Your task to perform on an android device: turn off notifications in google photos Image 0: 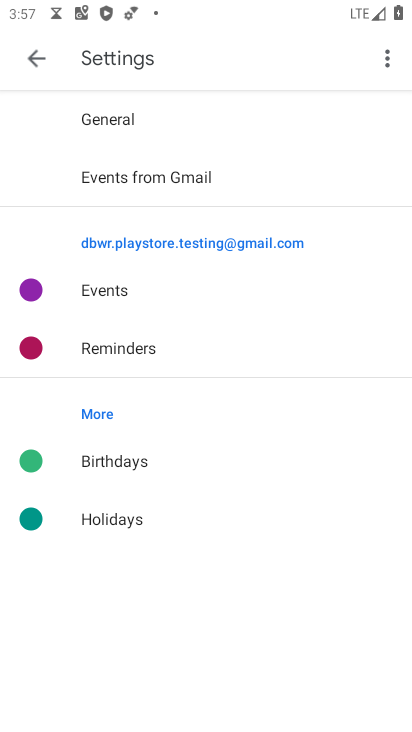
Step 0: press home button
Your task to perform on an android device: turn off notifications in google photos Image 1: 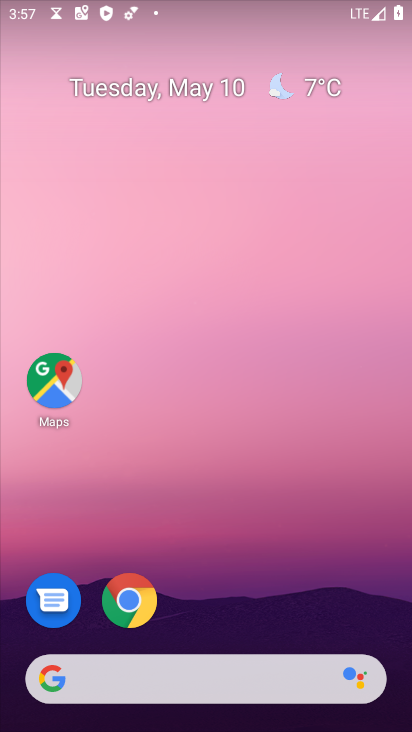
Step 1: drag from (207, 644) to (300, 75)
Your task to perform on an android device: turn off notifications in google photos Image 2: 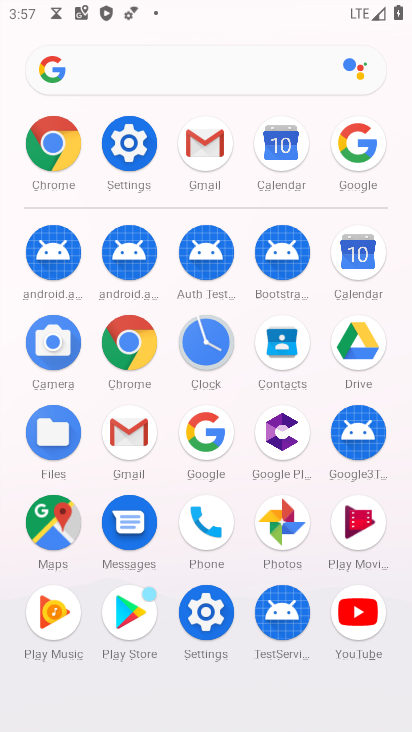
Step 2: click (284, 539)
Your task to perform on an android device: turn off notifications in google photos Image 3: 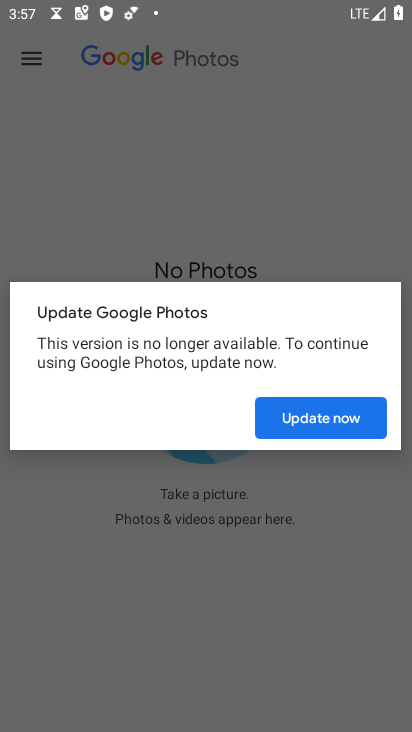
Step 3: click (299, 421)
Your task to perform on an android device: turn off notifications in google photos Image 4: 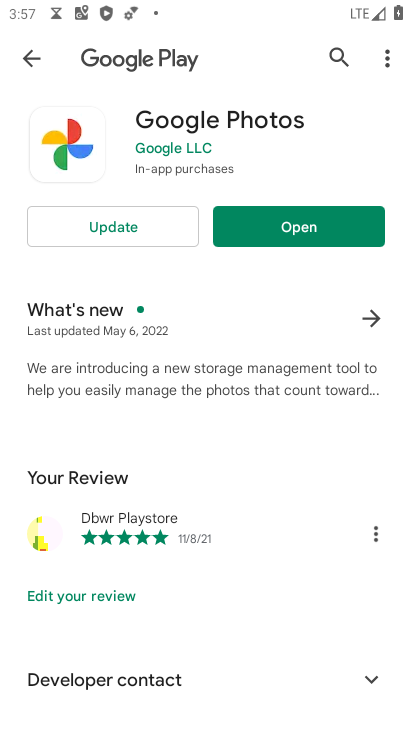
Step 4: click (171, 233)
Your task to perform on an android device: turn off notifications in google photos Image 5: 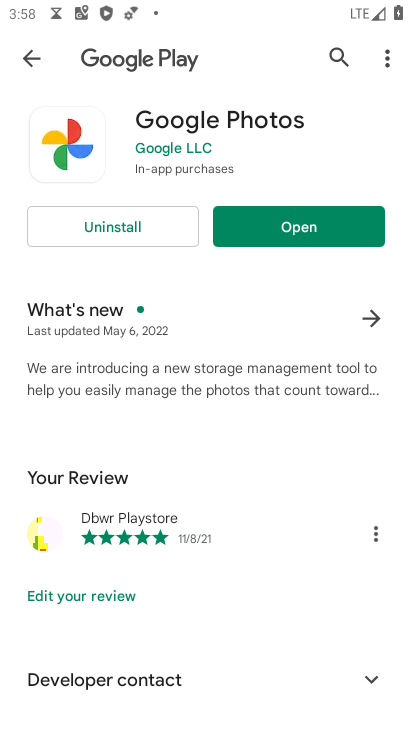
Step 5: click (269, 229)
Your task to perform on an android device: turn off notifications in google photos Image 6: 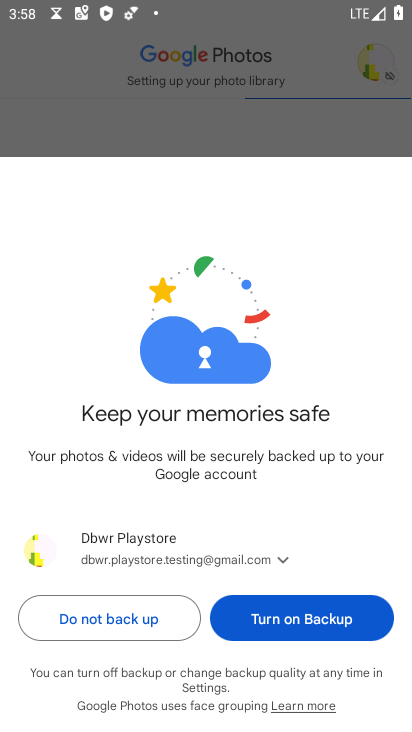
Step 6: click (310, 619)
Your task to perform on an android device: turn off notifications in google photos Image 7: 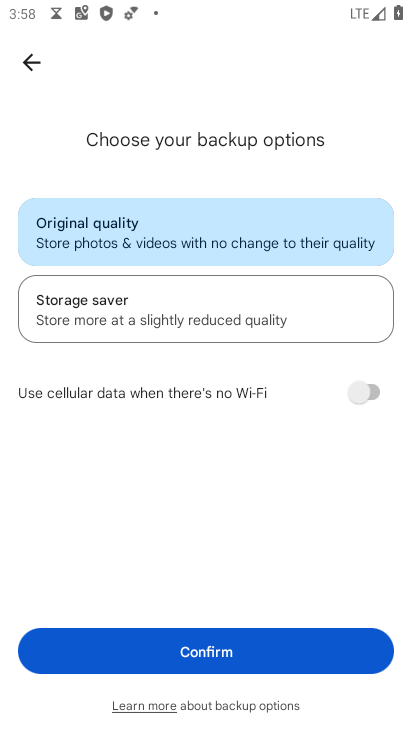
Step 7: click (372, 622)
Your task to perform on an android device: turn off notifications in google photos Image 8: 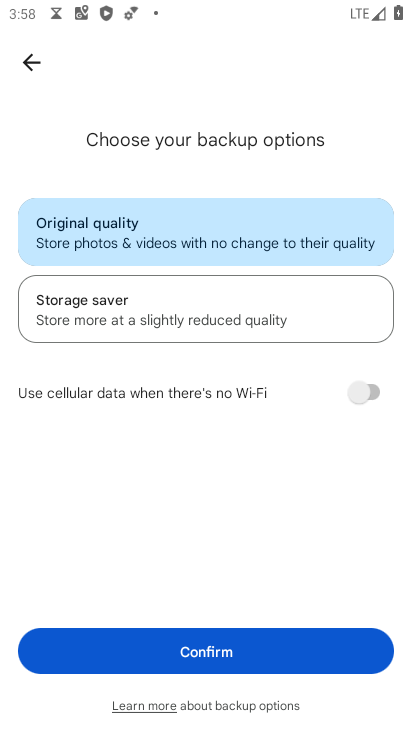
Step 8: click (332, 633)
Your task to perform on an android device: turn off notifications in google photos Image 9: 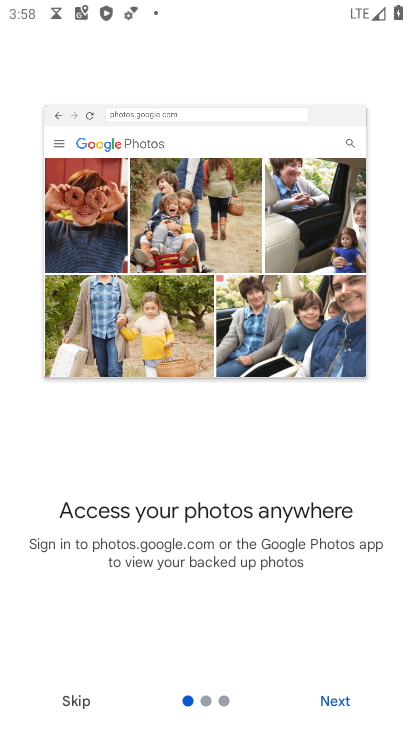
Step 9: click (342, 701)
Your task to perform on an android device: turn off notifications in google photos Image 10: 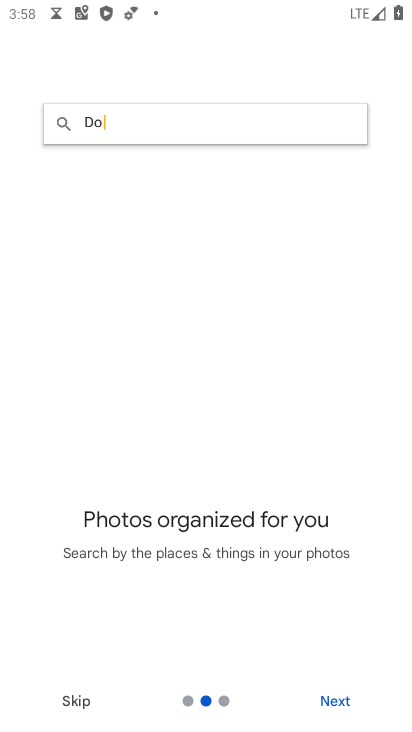
Step 10: click (353, 712)
Your task to perform on an android device: turn off notifications in google photos Image 11: 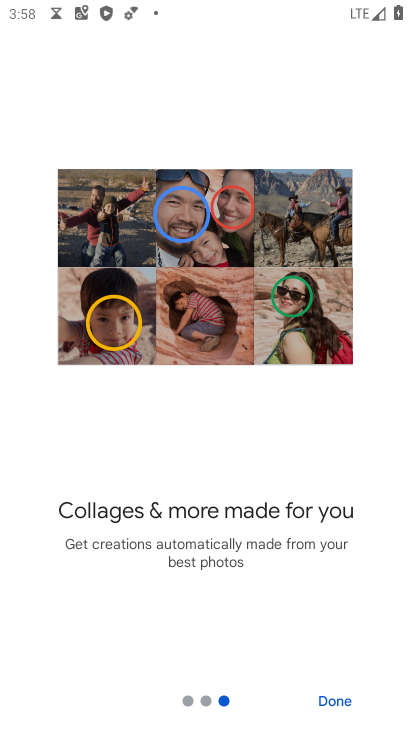
Step 11: click (344, 688)
Your task to perform on an android device: turn off notifications in google photos Image 12: 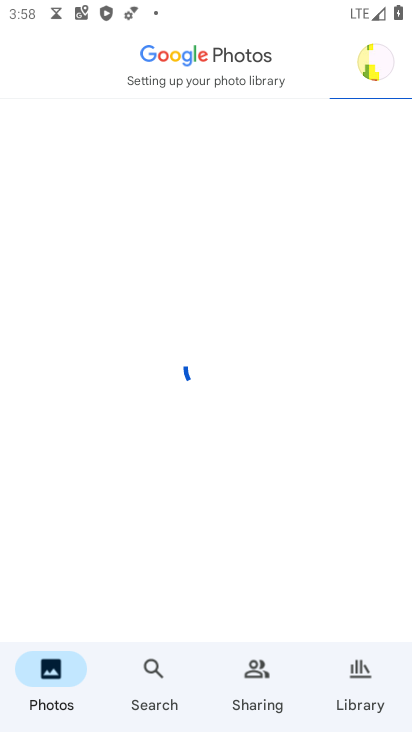
Step 12: click (366, 50)
Your task to perform on an android device: turn off notifications in google photos Image 13: 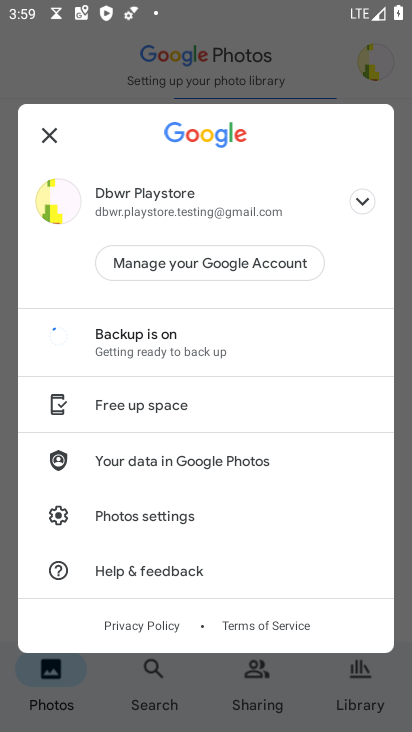
Step 13: click (202, 519)
Your task to perform on an android device: turn off notifications in google photos Image 14: 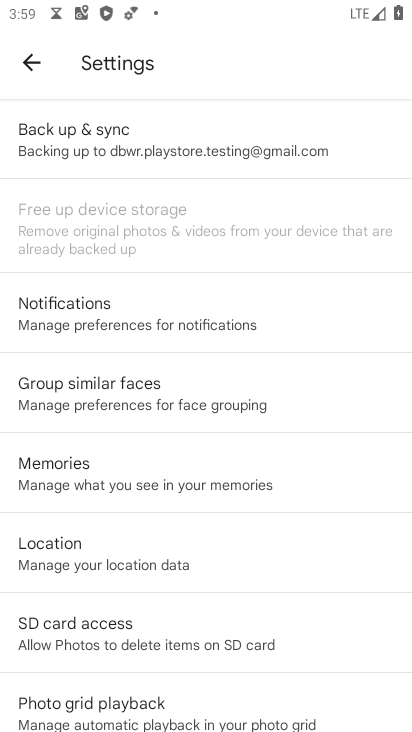
Step 14: drag from (268, 543) to (263, 338)
Your task to perform on an android device: turn off notifications in google photos Image 15: 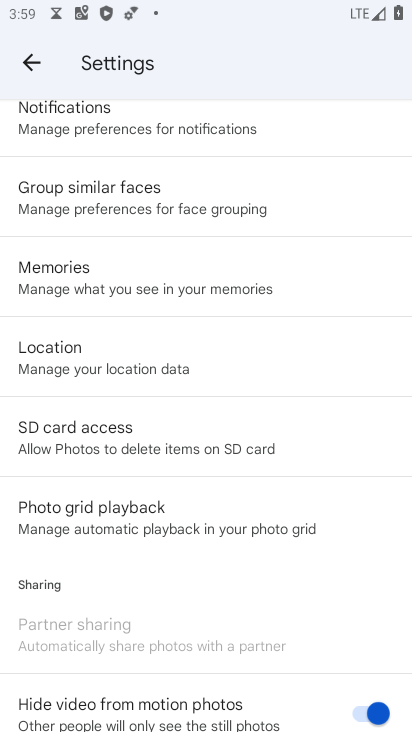
Step 15: drag from (292, 228) to (277, 570)
Your task to perform on an android device: turn off notifications in google photos Image 16: 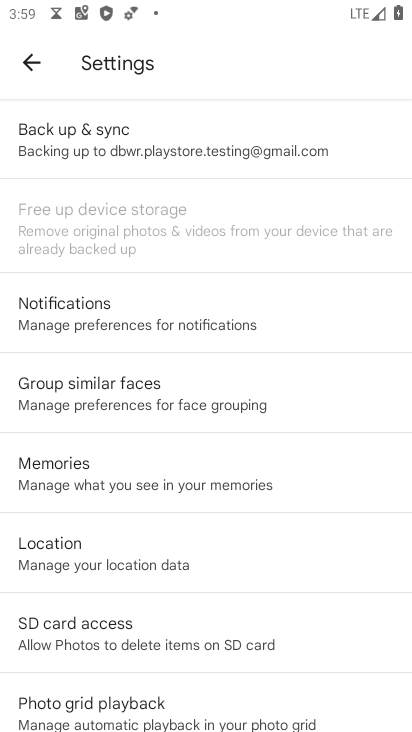
Step 16: click (290, 321)
Your task to perform on an android device: turn off notifications in google photos Image 17: 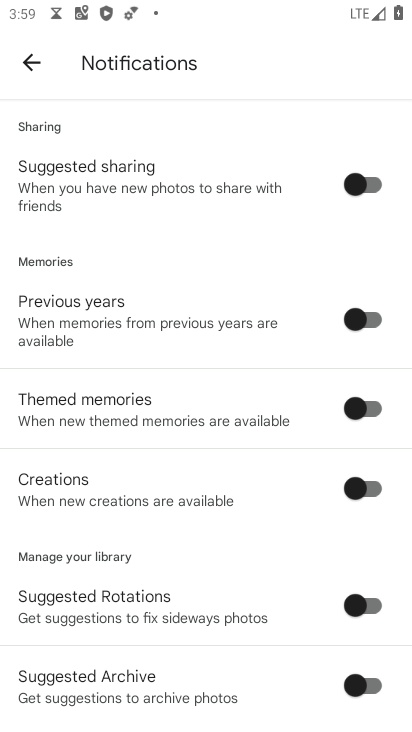
Step 17: task complete